Your task to perform on an android device: open sync settings in chrome Image 0: 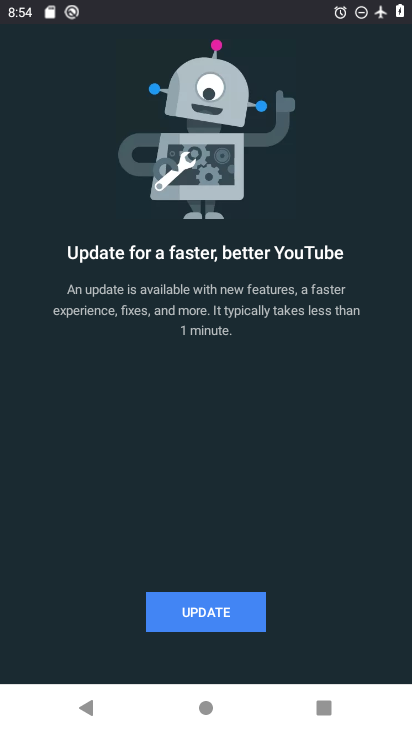
Step 0: press home button
Your task to perform on an android device: open sync settings in chrome Image 1: 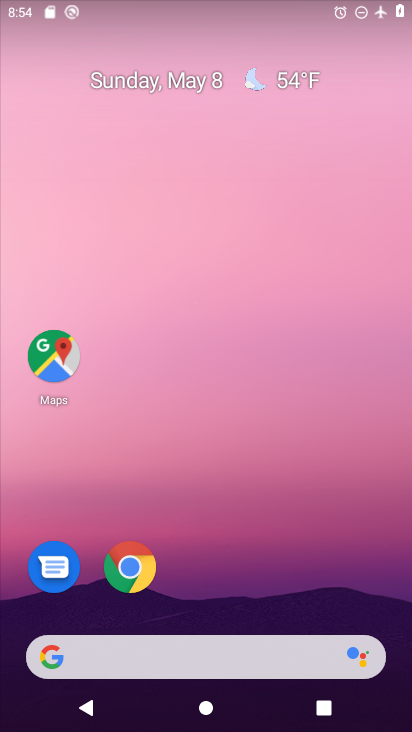
Step 1: drag from (308, 568) to (354, 125)
Your task to perform on an android device: open sync settings in chrome Image 2: 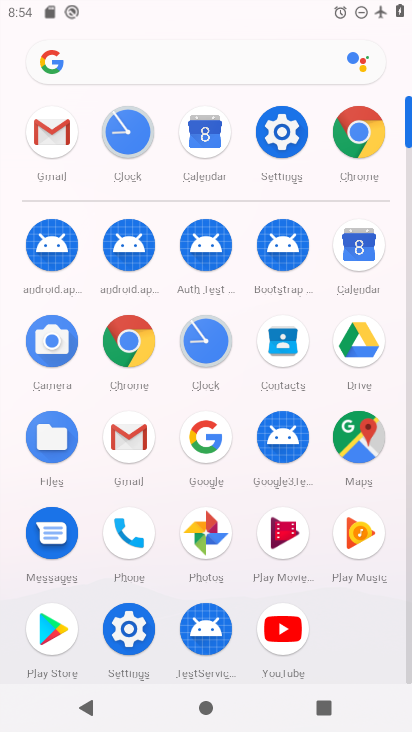
Step 2: click (365, 123)
Your task to perform on an android device: open sync settings in chrome Image 3: 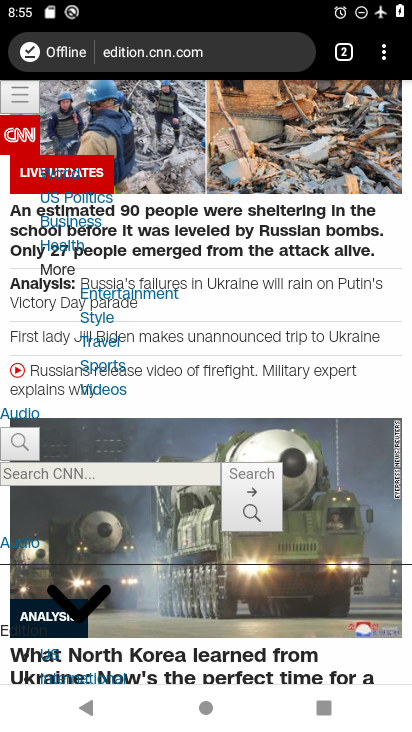
Step 3: drag from (386, 62) to (172, 589)
Your task to perform on an android device: open sync settings in chrome Image 4: 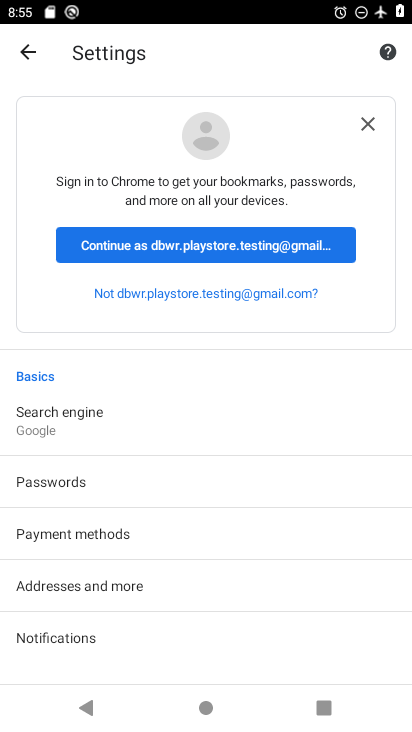
Step 4: drag from (190, 598) to (236, 239)
Your task to perform on an android device: open sync settings in chrome Image 5: 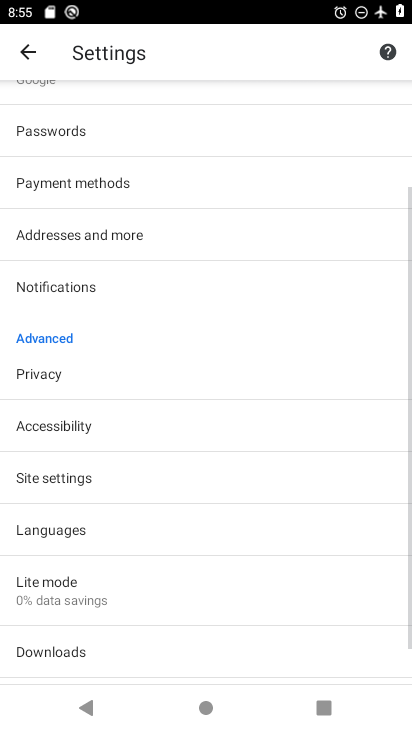
Step 5: drag from (166, 643) to (210, 276)
Your task to perform on an android device: open sync settings in chrome Image 6: 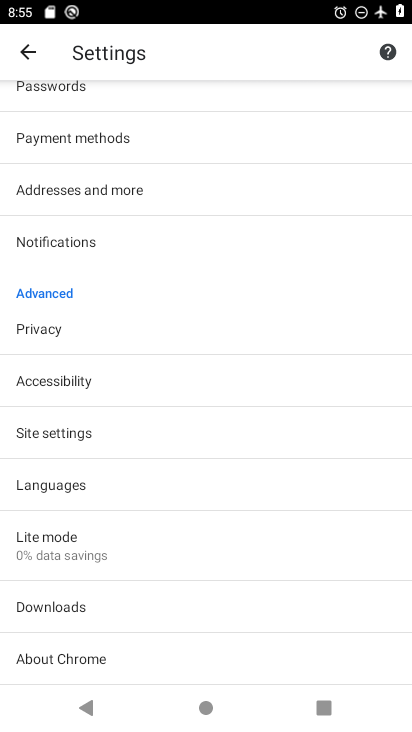
Step 6: drag from (256, 639) to (250, 355)
Your task to perform on an android device: open sync settings in chrome Image 7: 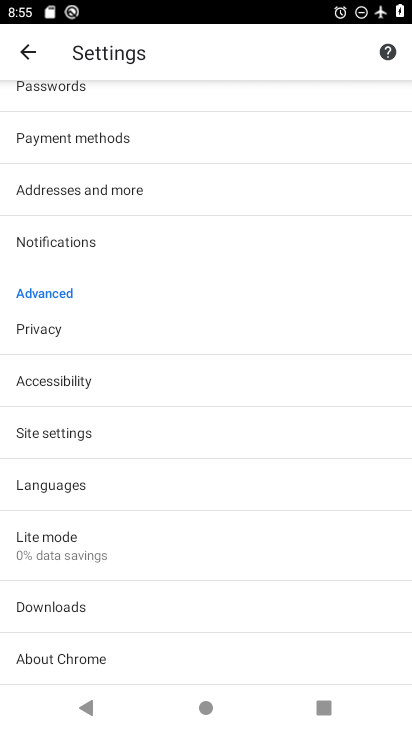
Step 7: click (48, 440)
Your task to perform on an android device: open sync settings in chrome Image 8: 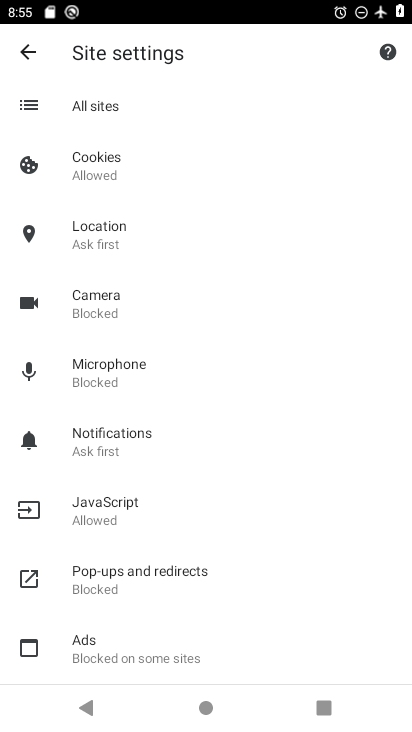
Step 8: drag from (119, 619) to (125, 210)
Your task to perform on an android device: open sync settings in chrome Image 9: 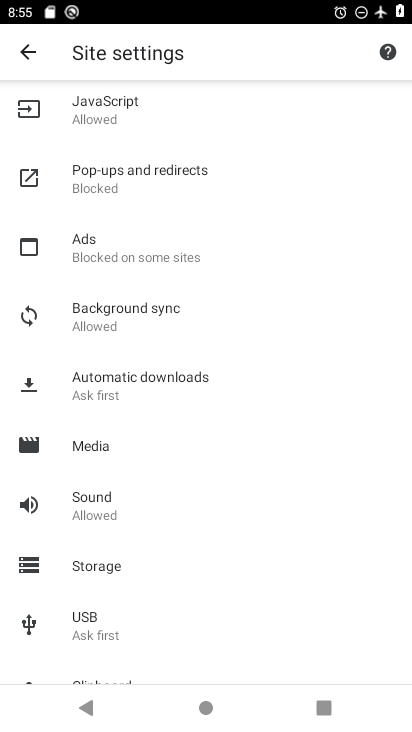
Step 9: drag from (176, 574) to (222, 280)
Your task to perform on an android device: open sync settings in chrome Image 10: 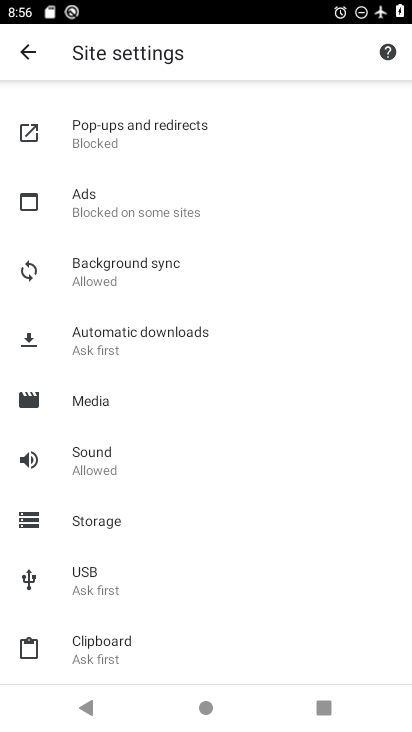
Step 10: click (128, 258)
Your task to perform on an android device: open sync settings in chrome Image 11: 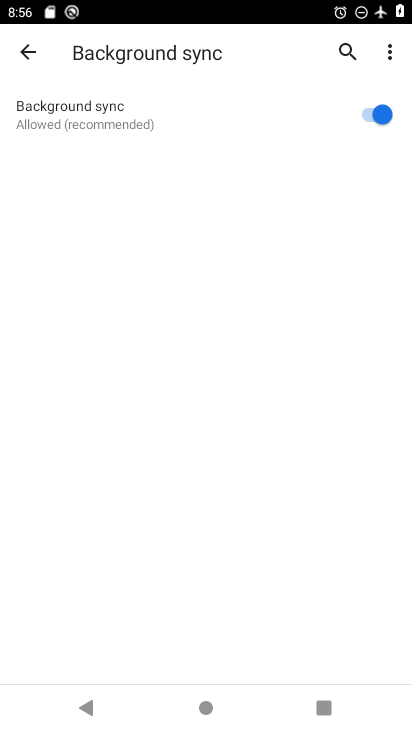
Step 11: task complete